Your task to perform on an android device: Open accessibility settings Image 0: 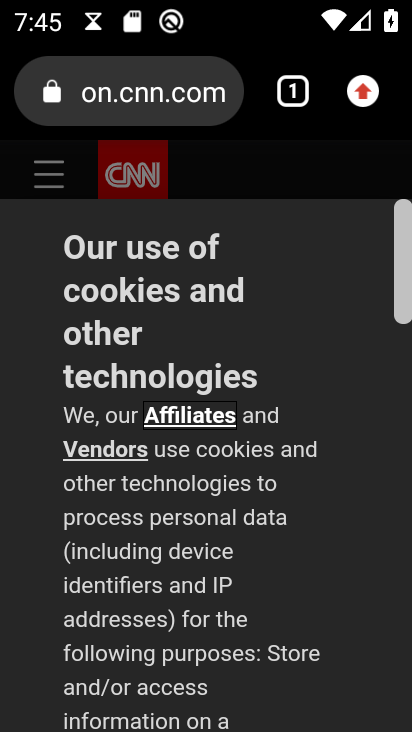
Step 0: press home button
Your task to perform on an android device: Open accessibility settings Image 1: 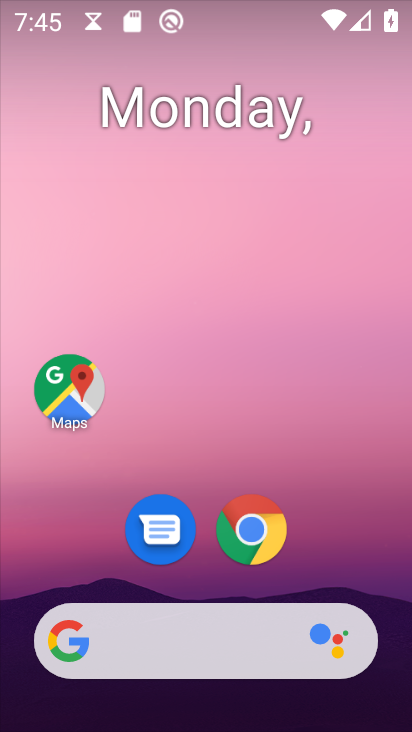
Step 1: drag from (154, 616) to (177, 101)
Your task to perform on an android device: Open accessibility settings Image 2: 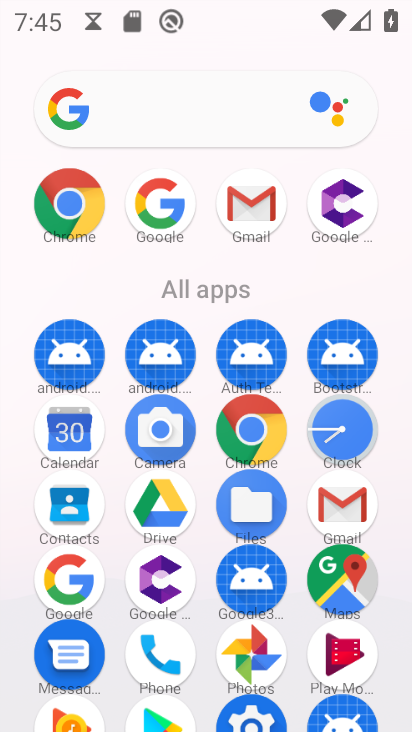
Step 2: click (243, 715)
Your task to perform on an android device: Open accessibility settings Image 3: 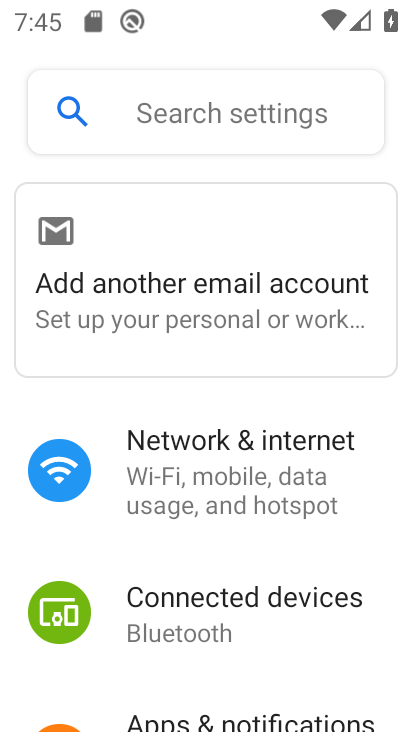
Step 3: drag from (232, 707) to (239, 251)
Your task to perform on an android device: Open accessibility settings Image 4: 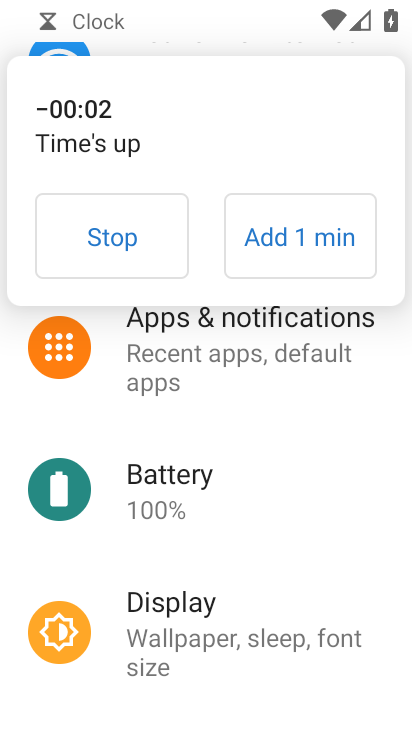
Step 4: click (126, 244)
Your task to perform on an android device: Open accessibility settings Image 5: 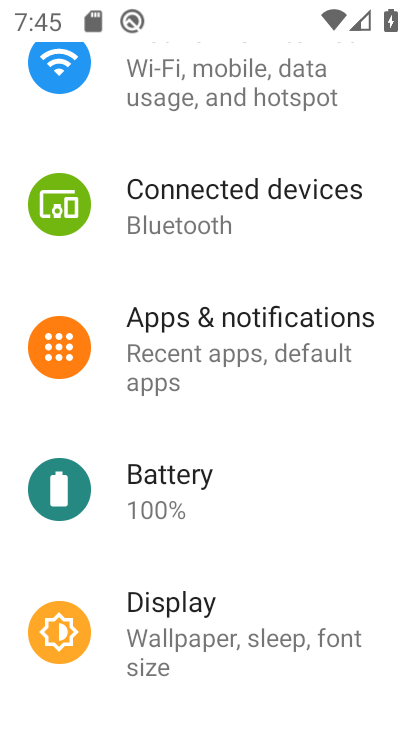
Step 5: drag from (210, 225) to (212, 147)
Your task to perform on an android device: Open accessibility settings Image 6: 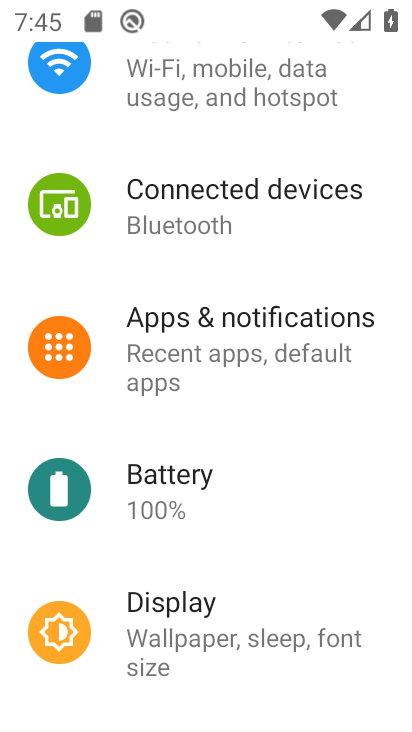
Step 6: drag from (240, 625) to (236, 269)
Your task to perform on an android device: Open accessibility settings Image 7: 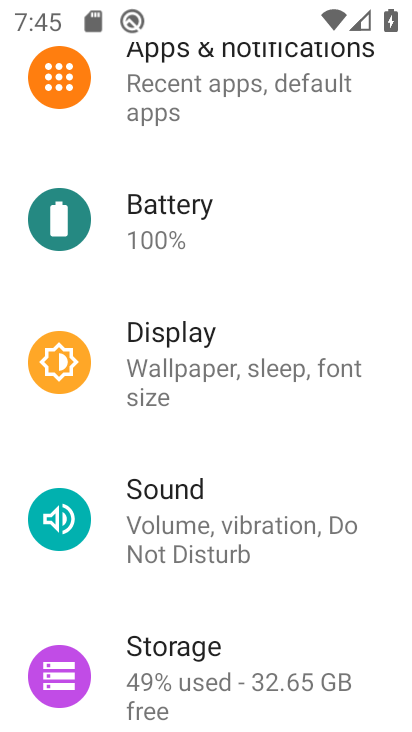
Step 7: drag from (236, 722) to (233, 351)
Your task to perform on an android device: Open accessibility settings Image 8: 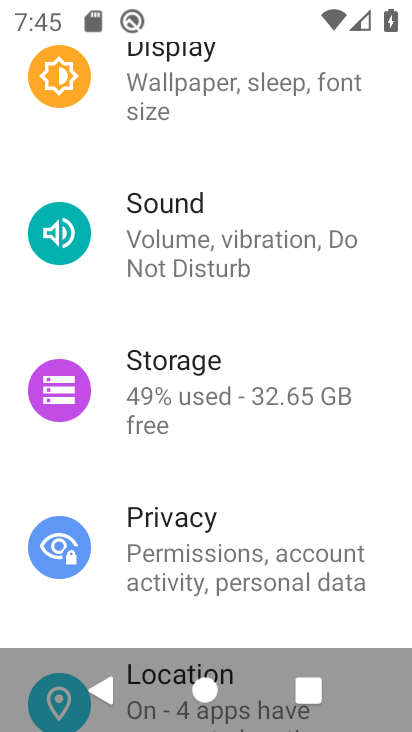
Step 8: drag from (253, 598) to (256, 239)
Your task to perform on an android device: Open accessibility settings Image 9: 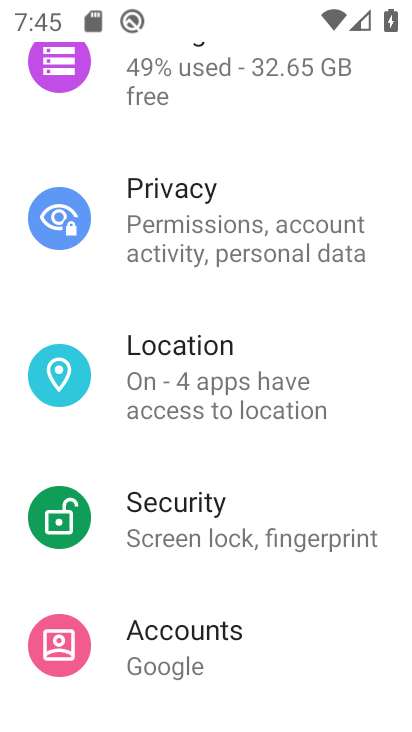
Step 9: drag from (205, 662) to (227, 215)
Your task to perform on an android device: Open accessibility settings Image 10: 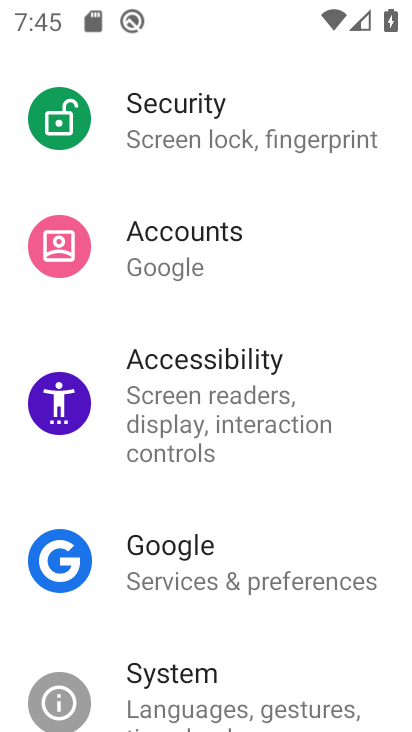
Step 10: drag from (220, 696) to (237, 443)
Your task to perform on an android device: Open accessibility settings Image 11: 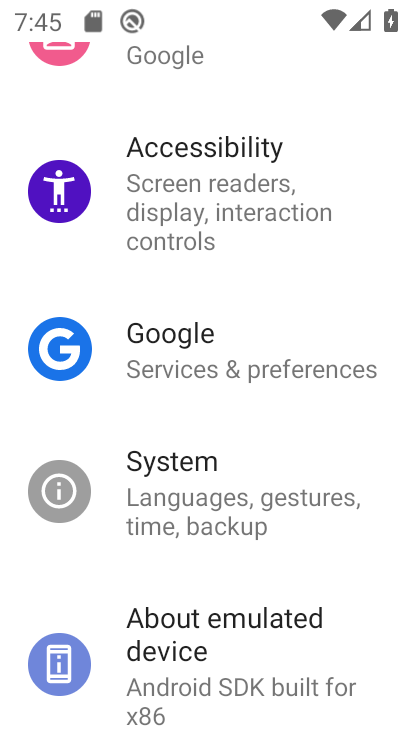
Step 11: click (203, 194)
Your task to perform on an android device: Open accessibility settings Image 12: 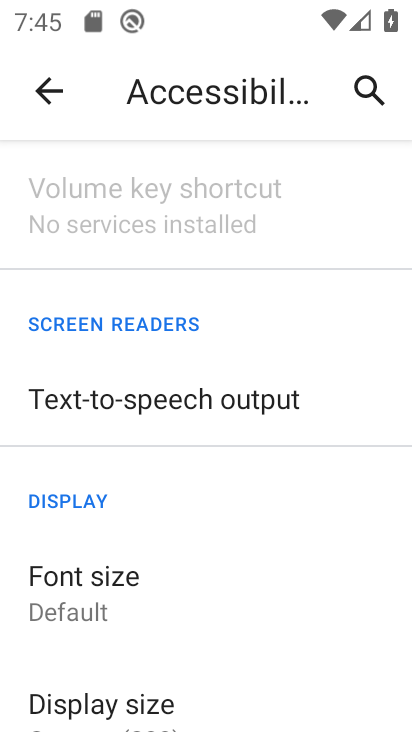
Step 12: task complete